Your task to perform on an android device: turn off picture-in-picture Image 0: 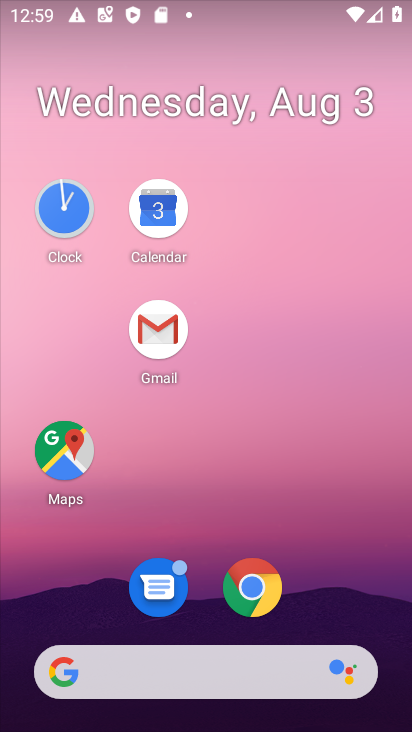
Step 0: click (265, 585)
Your task to perform on an android device: turn off picture-in-picture Image 1: 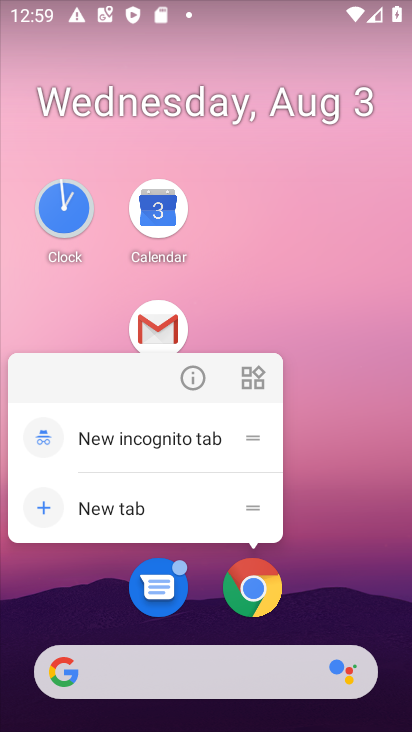
Step 1: click (188, 383)
Your task to perform on an android device: turn off picture-in-picture Image 2: 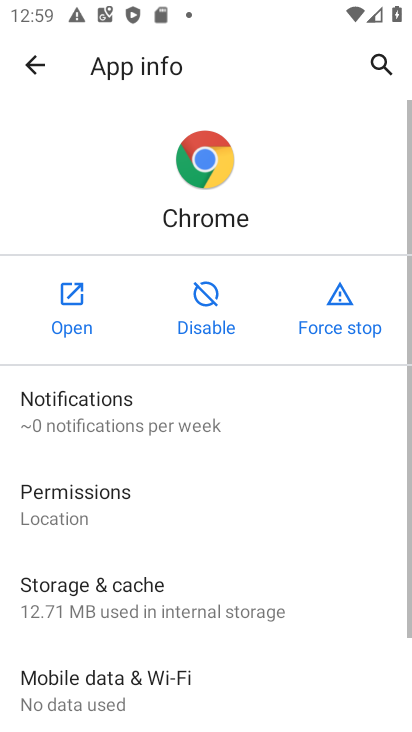
Step 2: drag from (166, 632) to (230, 290)
Your task to perform on an android device: turn off picture-in-picture Image 3: 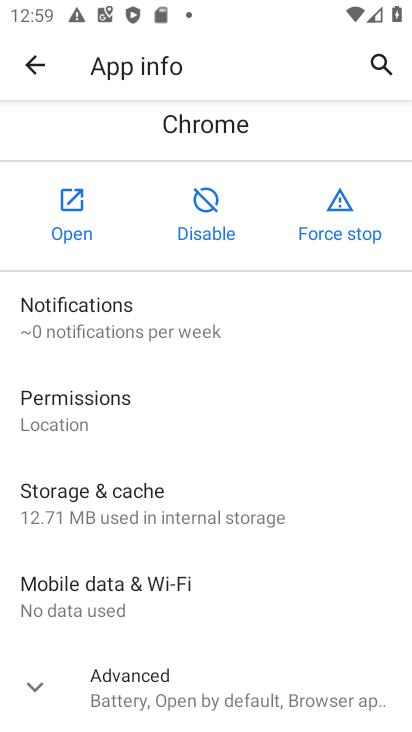
Step 3: click (146, 686)
Your task to perform on an android device: turn off picture-in-picture Image 4: 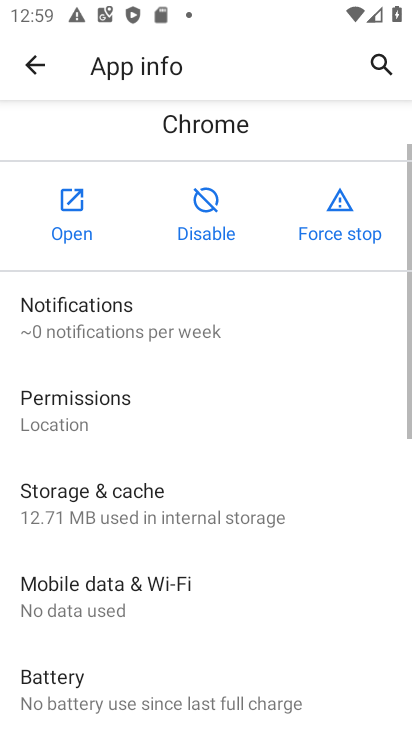
Step 4: drag from (253, 650) to (315, 225)
Your task to perform on an android device: turn off picture-in-picture Image 5: 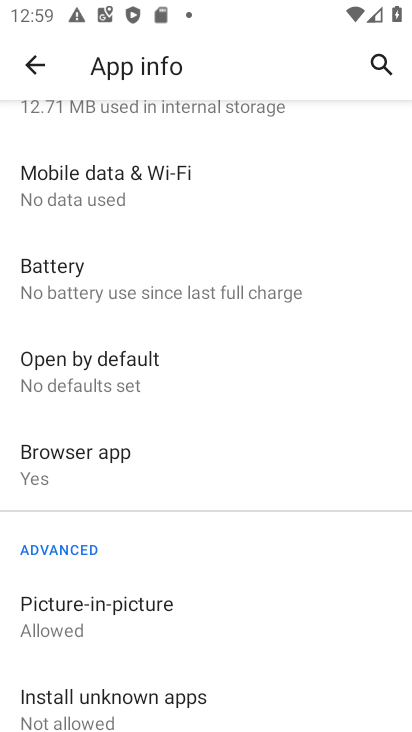
Step 5: click (231, 593)
Your task to perform on an android device: turn off picture-in-picture Image 6: 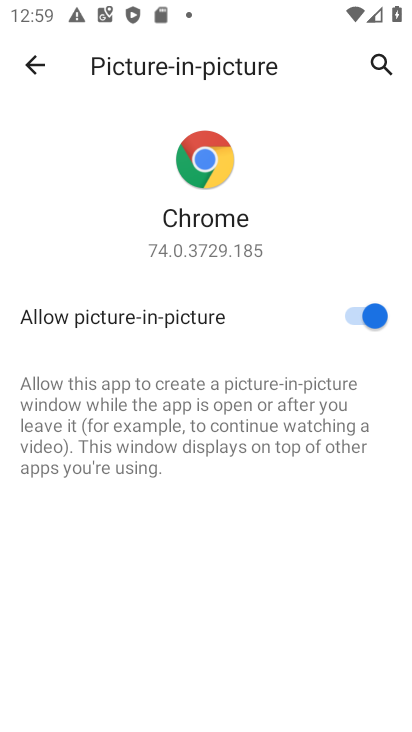
Step 6: click (353, 309)
Your task to perform on an android device: turn off picture-in-picture Image 7: 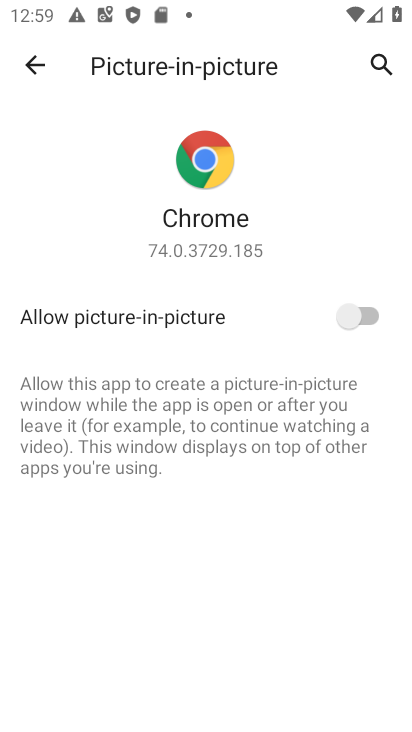
Step 7: task complete